Your task to perform on an android device: turn notification dots off Image 0: 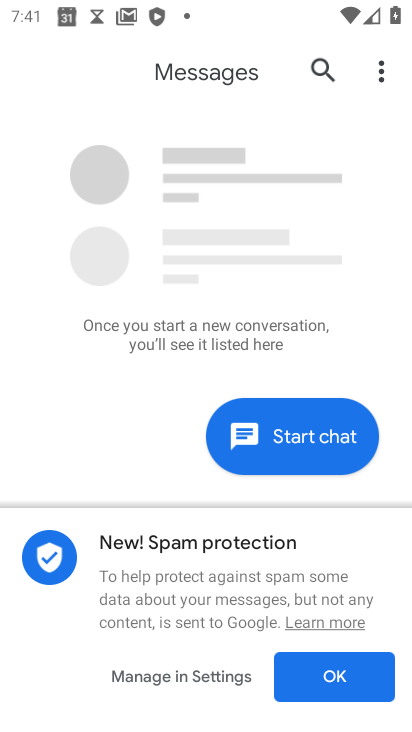
Step 0: press home button
Your task to perform on an android device: turn notification dots off Image 1: 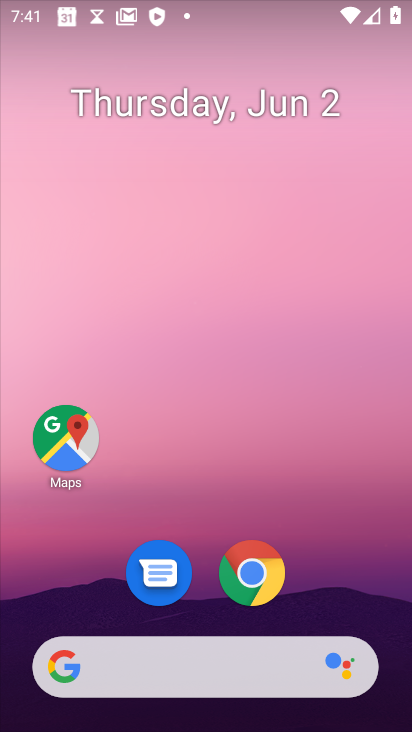
Step 1: drag from (169, 665) to (280, 105)
Your task to perform on an android device: turn notification dots off Image 2: 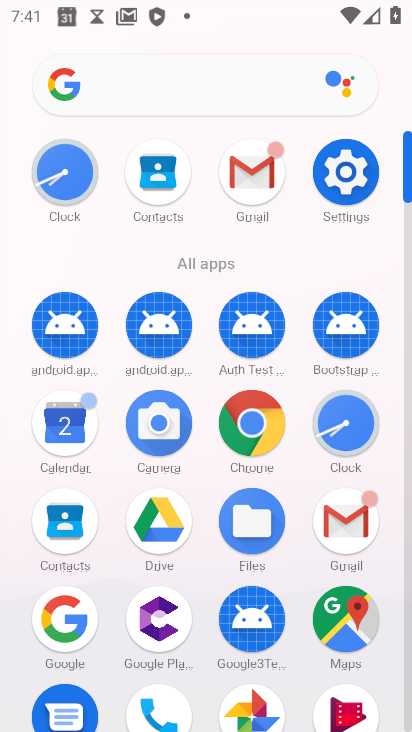
Step 2: click (344, 166)
Your task to perform on an android device: turn notification dots off Image 3: 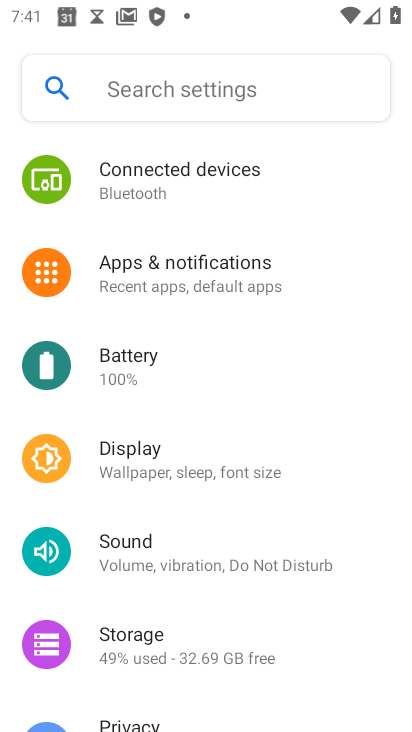
Step 3: click (217, 266)
Your task to perform on an android device: turn notification dots off Image 4: 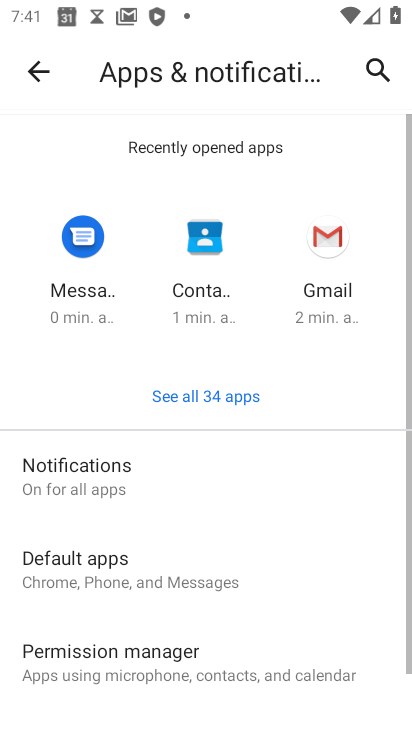
Step 4: click (68, 488)
Your task to perform on an android device: turn notification dots off Image 5: 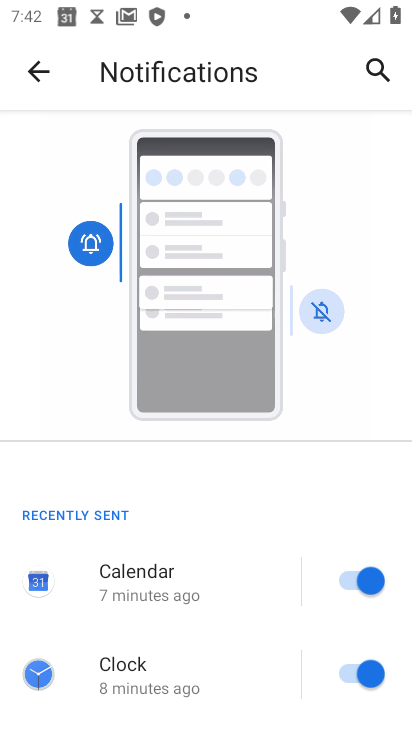
Step 5: drag from (230, 704) to (332, 177)
Your task to perform on an android device: turn notification dots off Image 6: 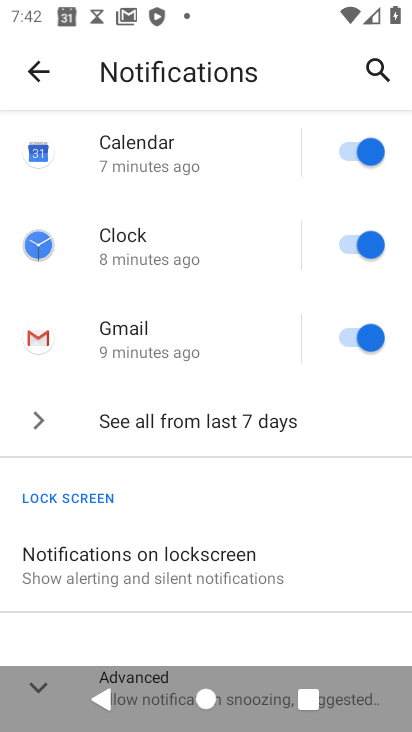
Step 6: drag from (248, 546) to (304, 224)
Your task to perform on an android device: turn notification dots off Image 7: 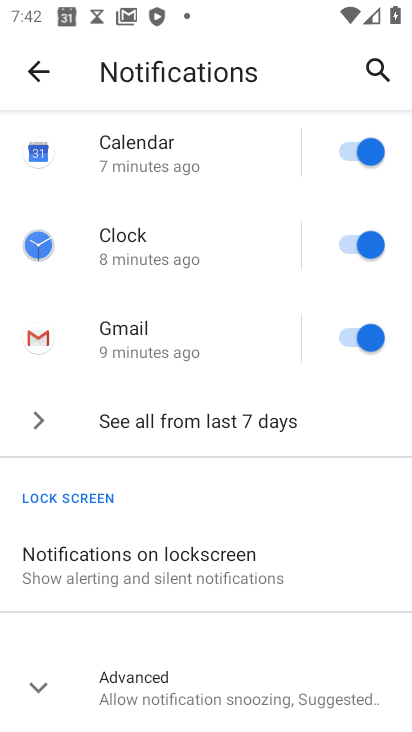
Step 7: click (139, 684)
Your task to perform on an android device: turn notification dots off Image 8: 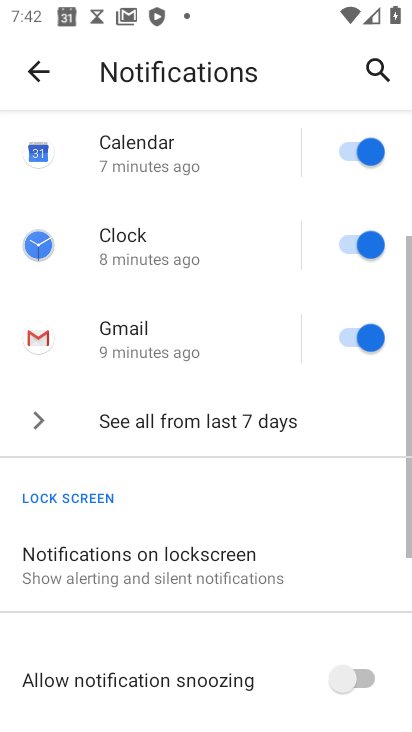
Step 8: drag from (226, 653) to (308, 96)
Your task to perform on an android device: turn notification dots off Image 9: 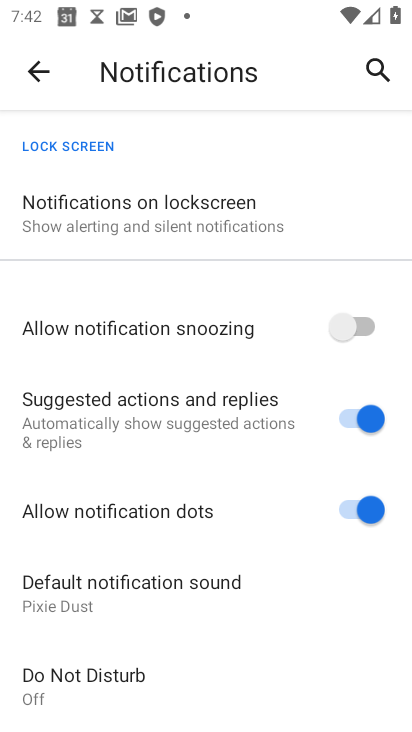
Step 9: click (351, 505)
Your task to perform on an android device: turn notification dots off Image 10: 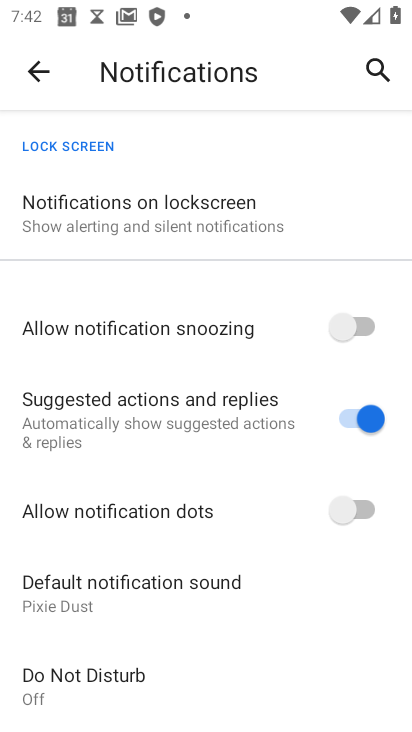
Step 10: task complete